Your task to perform on an android device: change your default location settings in chrome Image 0: 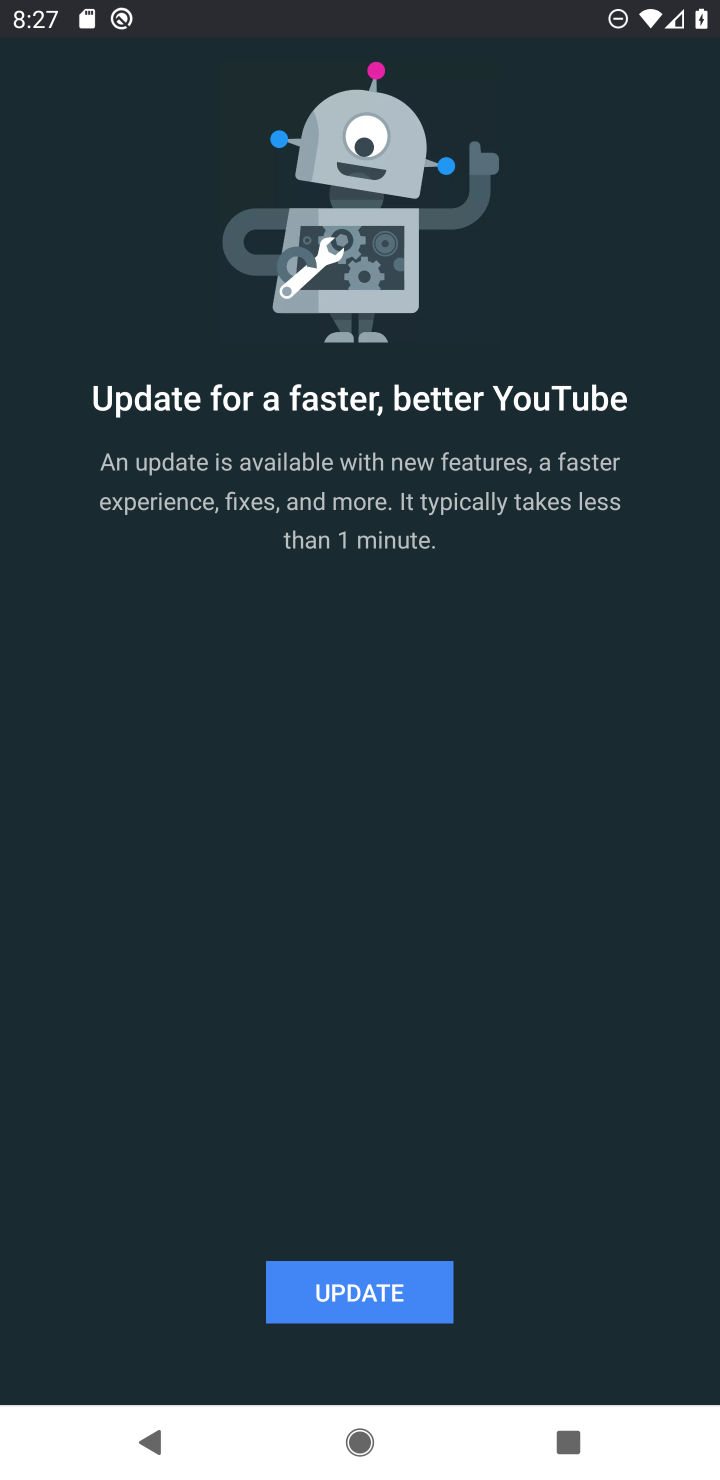
Step 0: press home button
Your task to perform on an android device: change your default location settings in chrome Image 1: 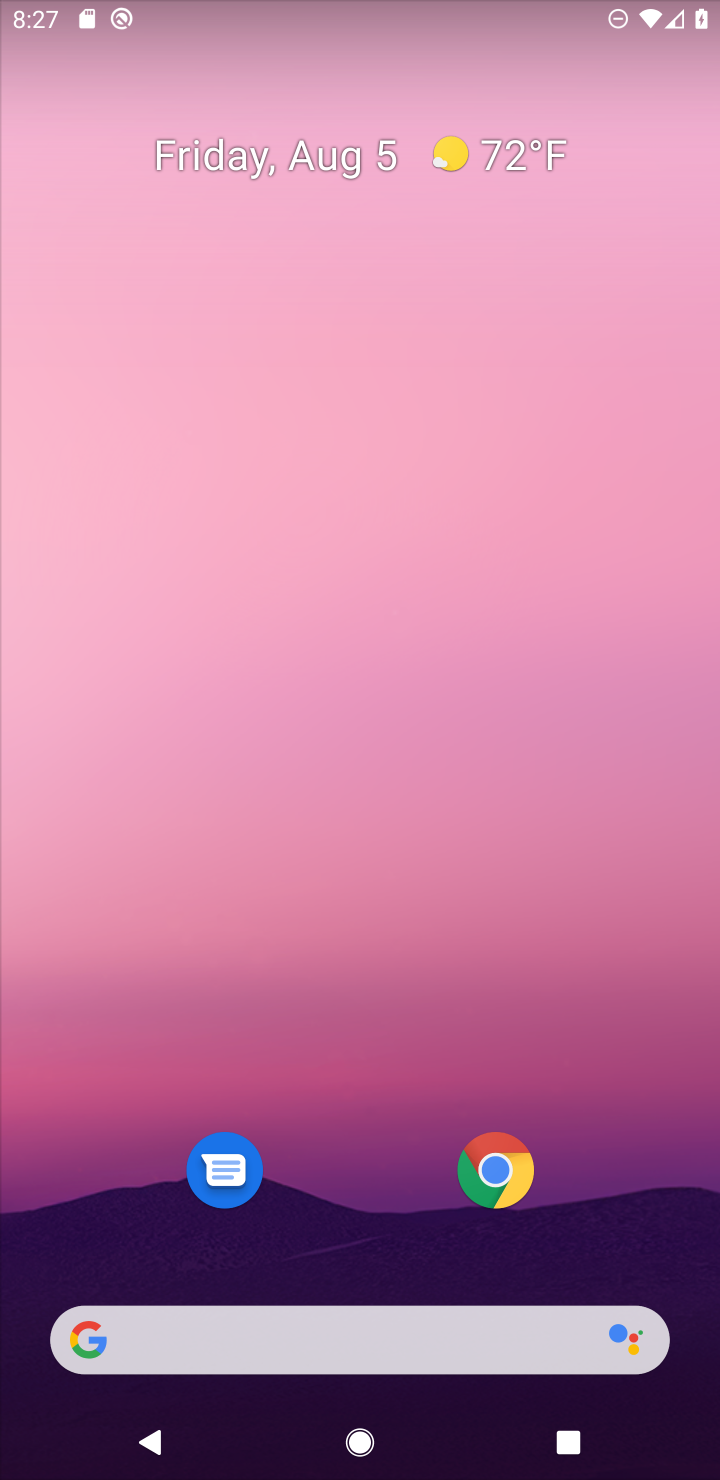
Step 1: click (493, 1166)
Your task to perform on an android device: change your default location settings in chrome Image 2: 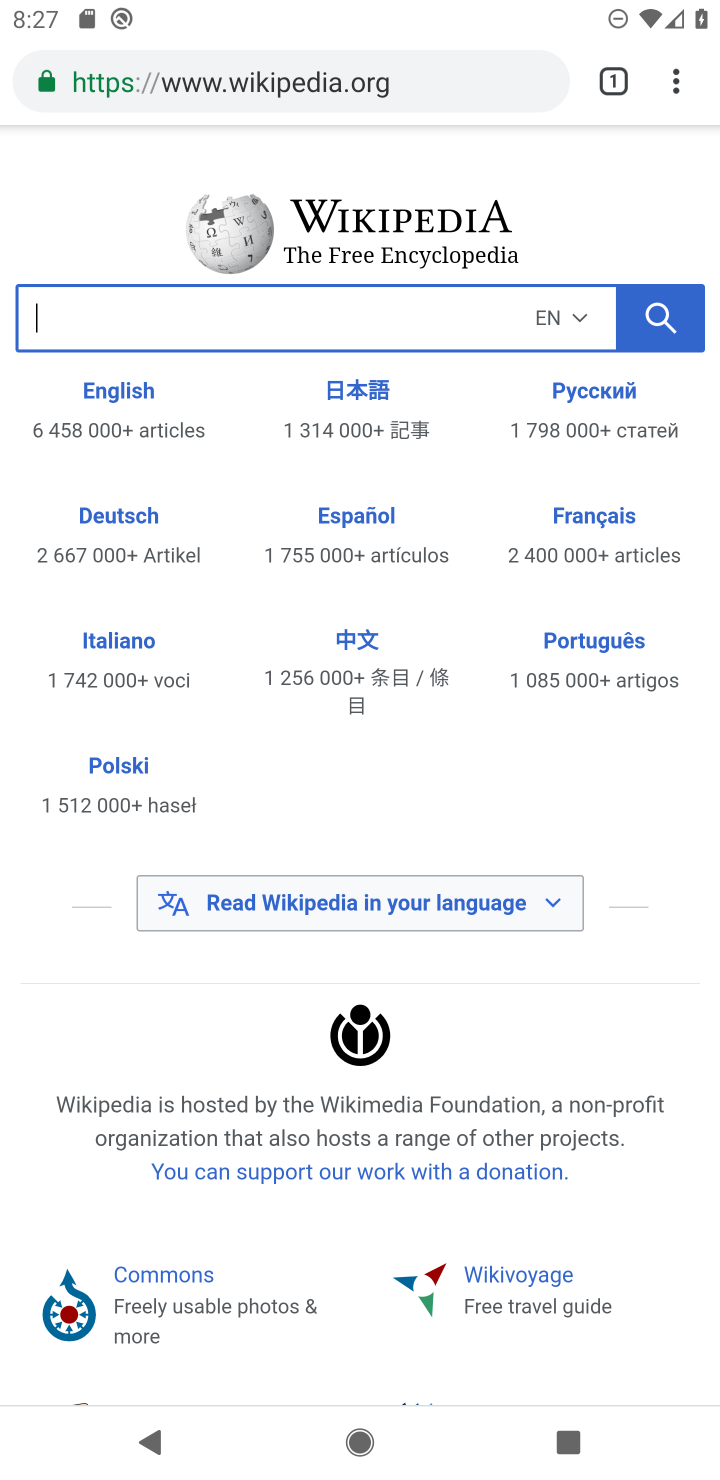
Step 2: click (672, 92)
Your task to perform on an android device: change your default location settings in chrome Image 3: 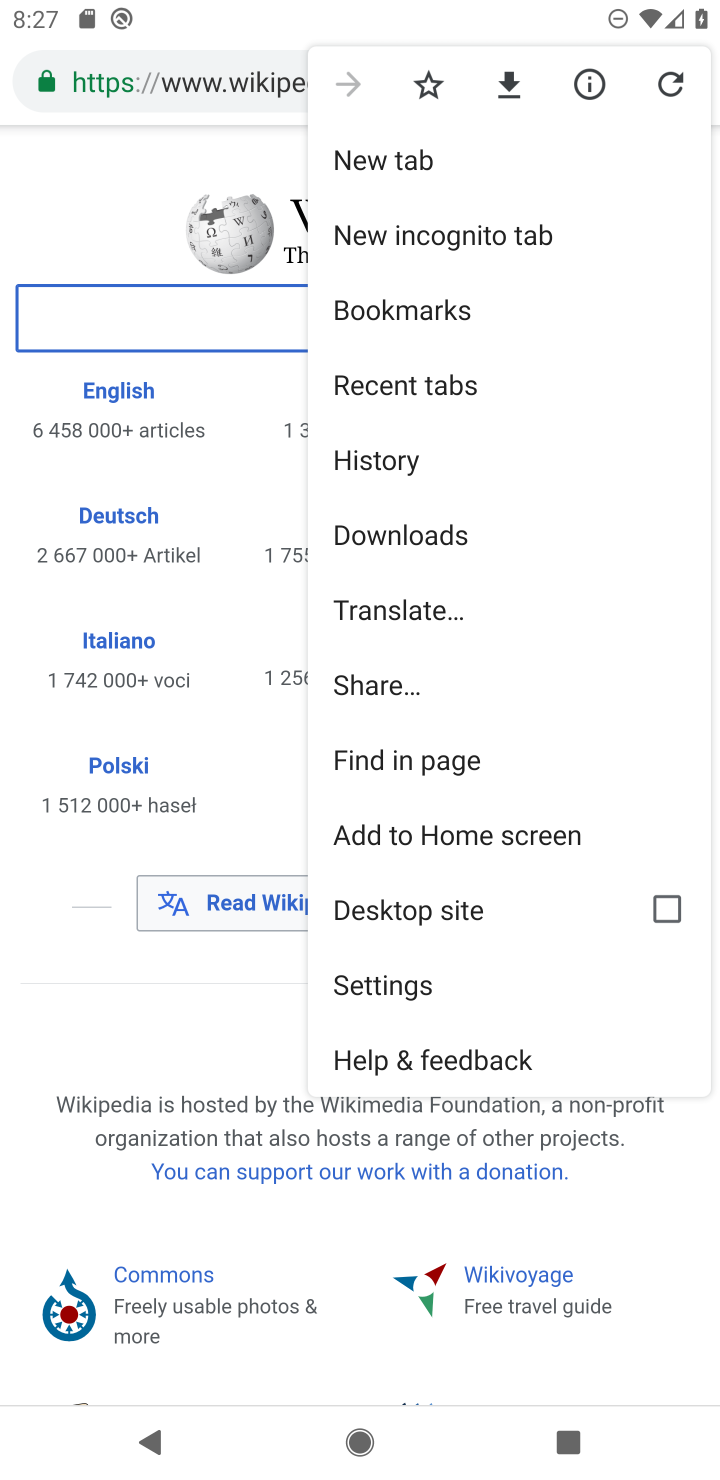
Step 3: click (398, 986)
Your task to perform on an android device: change your default location settings in chrome Image 4: 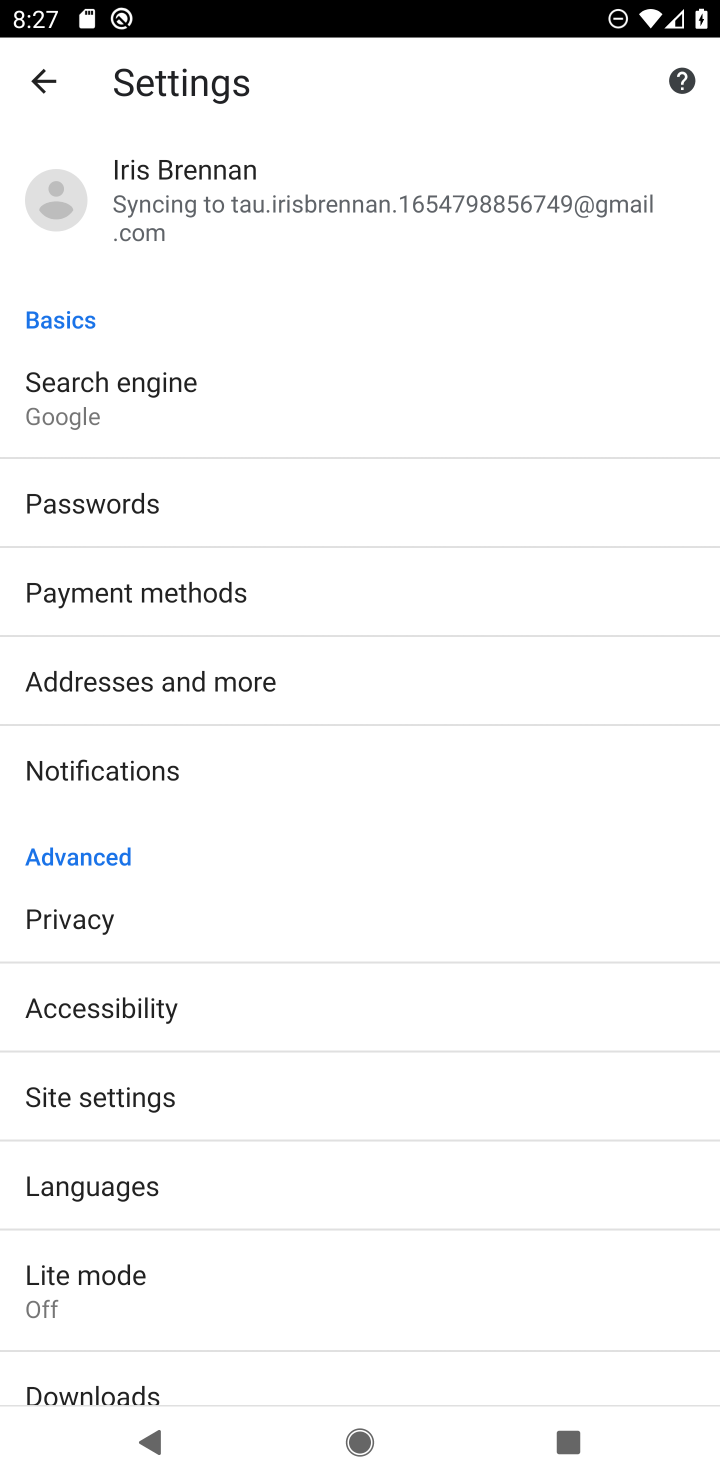
Step 4: click (122, 1097)
Your task to perform on an android device: change your default location settings in chrome Image 5: 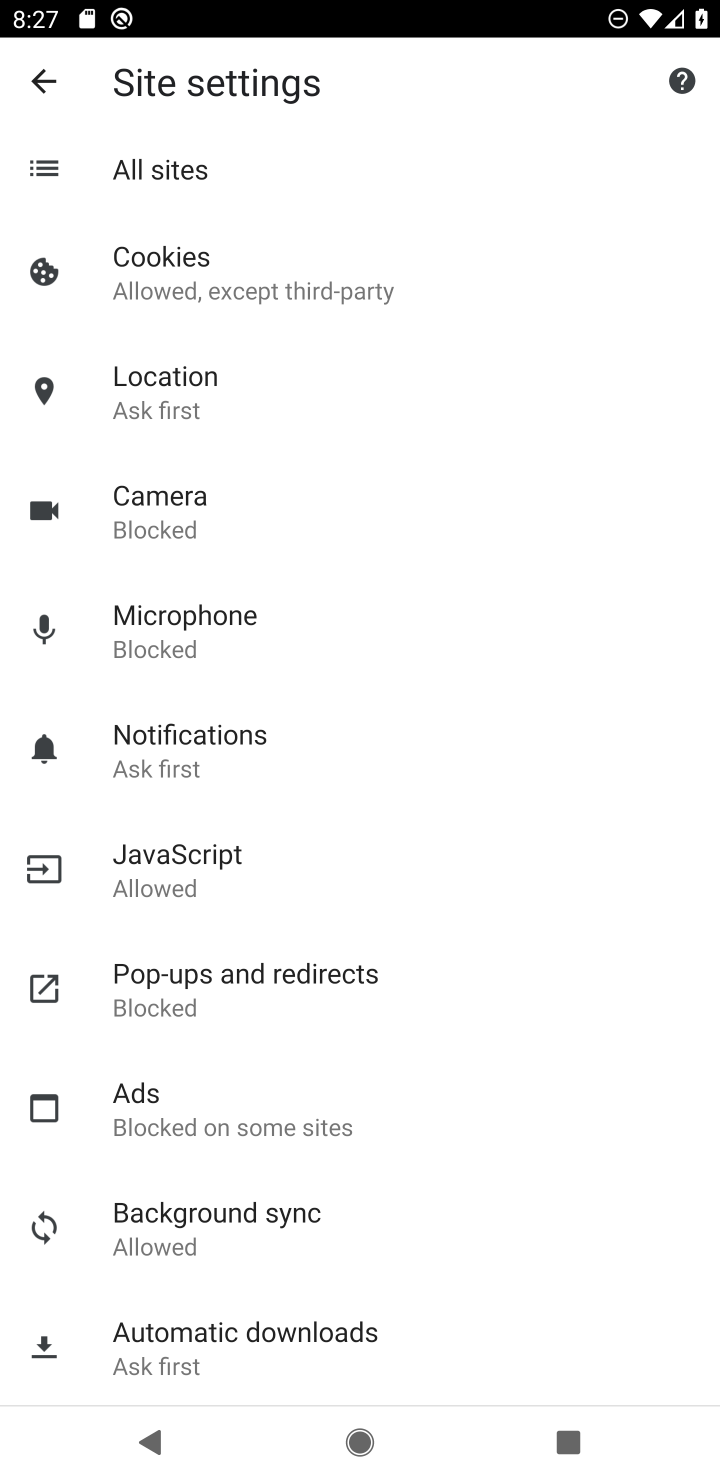
Step 5: click (154, 385)
Your task to perform on an android device: change your default location settings in chrome Image 6: 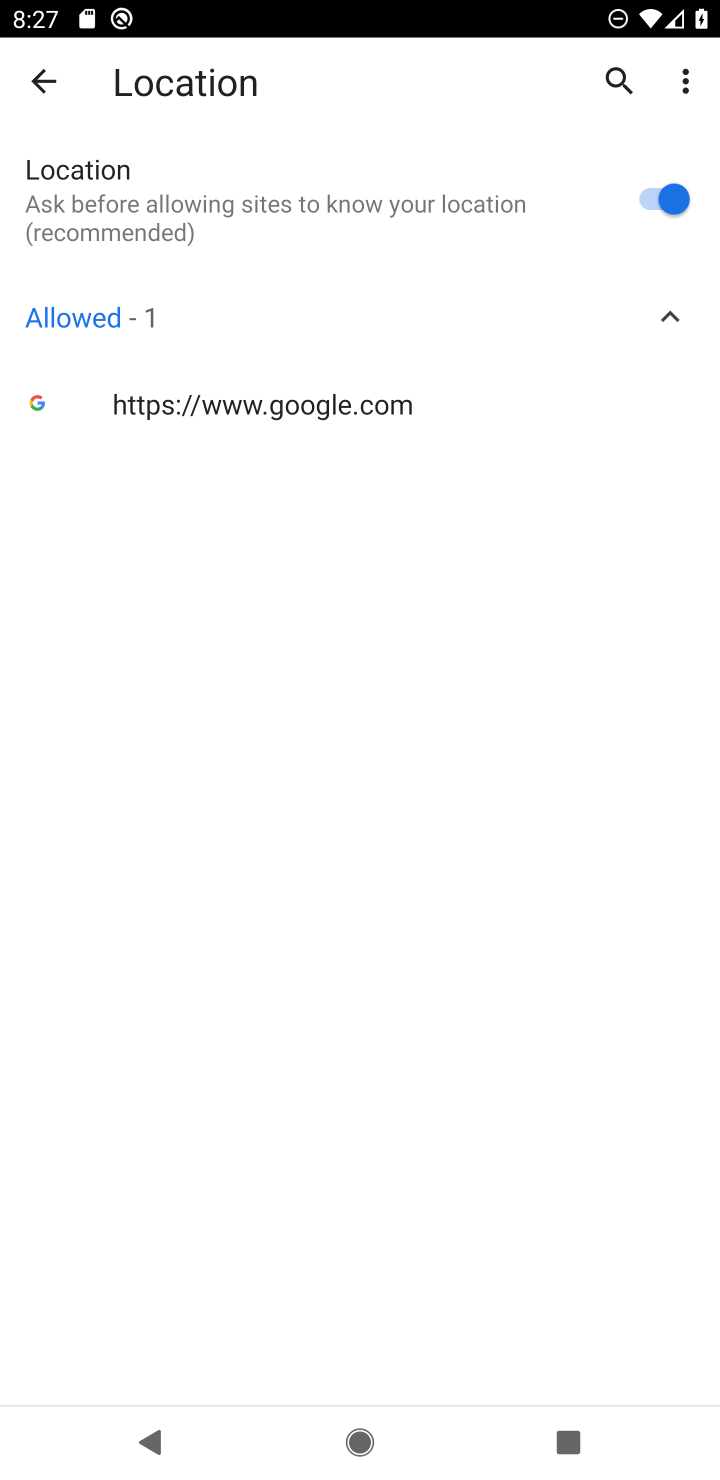
Step 6: click (648, 201)
Your task to perform on an android device: change your default location settings in chrome Image 7: 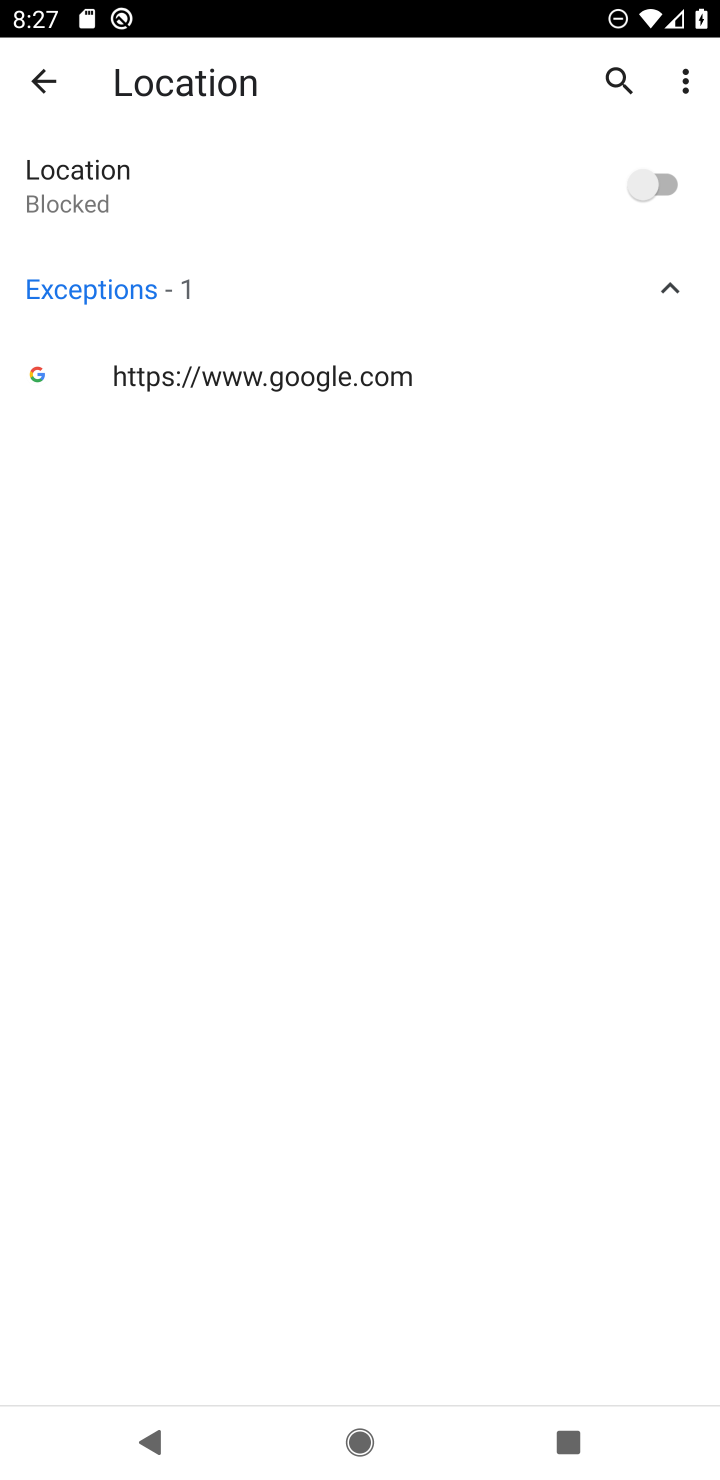
Step 7: task complete